Your task to perform on an android device: toggle sleep mode Image 0: 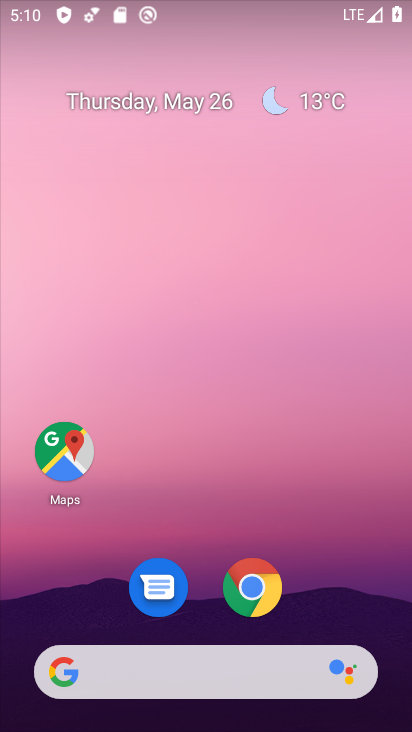
Step 0: drag from (208, 729) to (210, 140)
Your task to perform on an android device: toggle sleep mode Image 1: 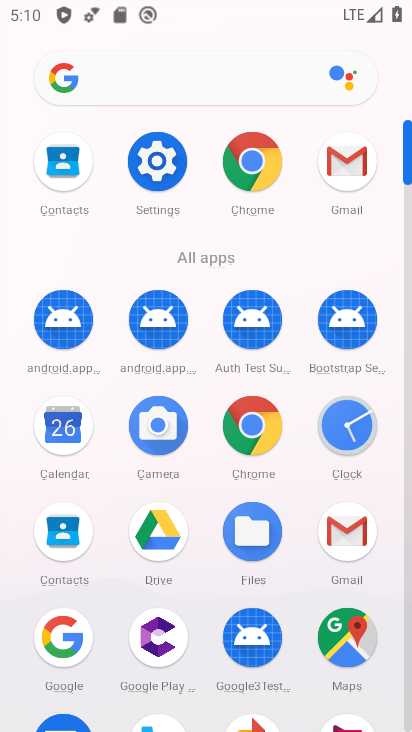
Step 1: click (158, 159)
Your task to perform on an android device: toggle sleep mode Image 2: 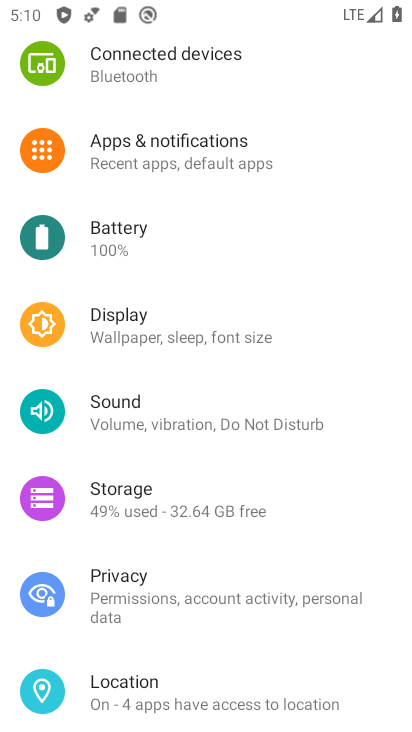
Step 2: drag from (235, 651) to (240, 252)
Your task to perform on an android device: toggle sleep mode Image 3: 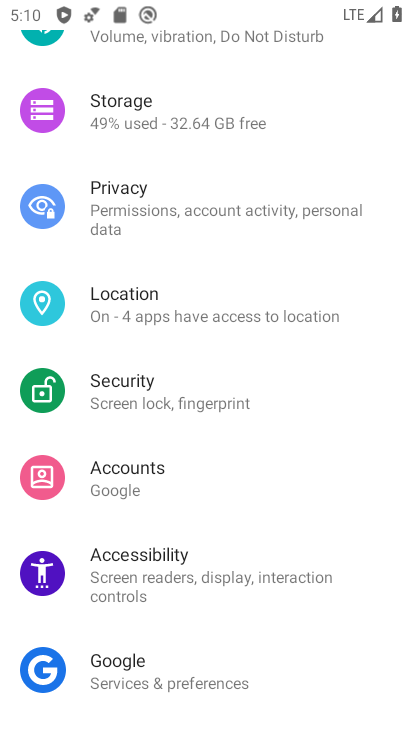
Step 3: drag from (209, 698) to (209, 312)
Your task to perform on an android device: toggle sleep mode Image 4: 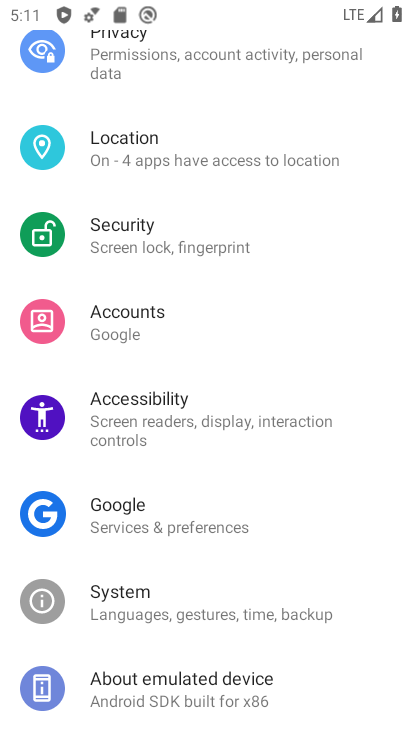
Step 4: drag from (261, 124) to (278, 442)
Your task to perform on an android device: toggle sleep mode Image 5: 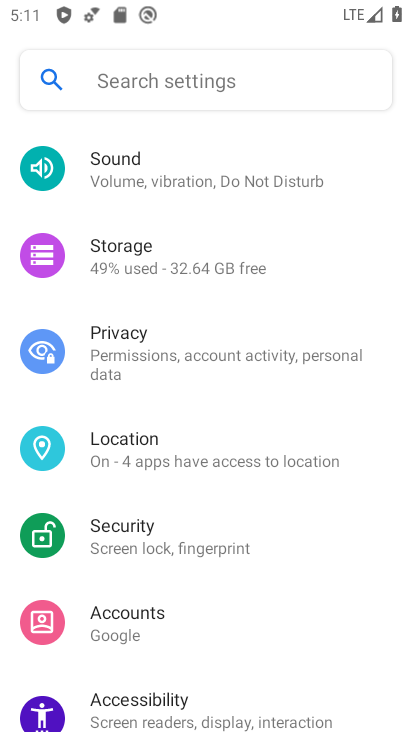
Step 5: drag from (265, 128) to (290, 507)
Your task to perform on an android device: toggle sleep mode Image 6: 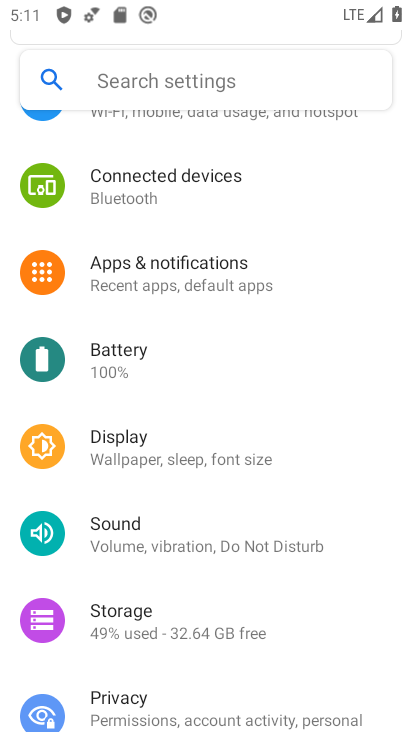
Step 6: drag from (274, 191) to (282, 546)
Your task to perform on an android device: toggle sleep mode Image 7: 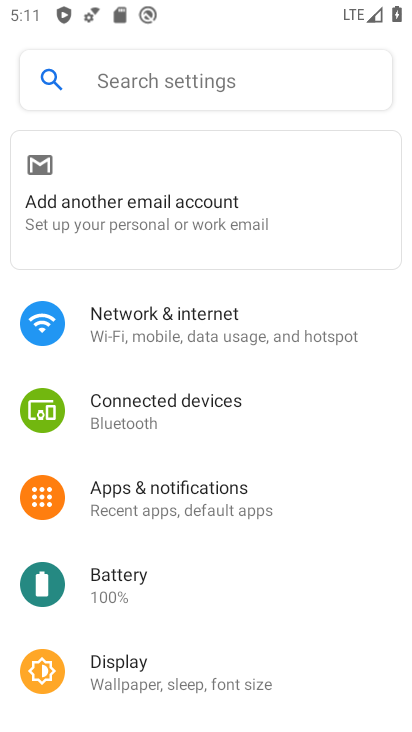
Step 7: click (180, 680)
Your task to perform on an android device: toggle sleep mode Image 8: 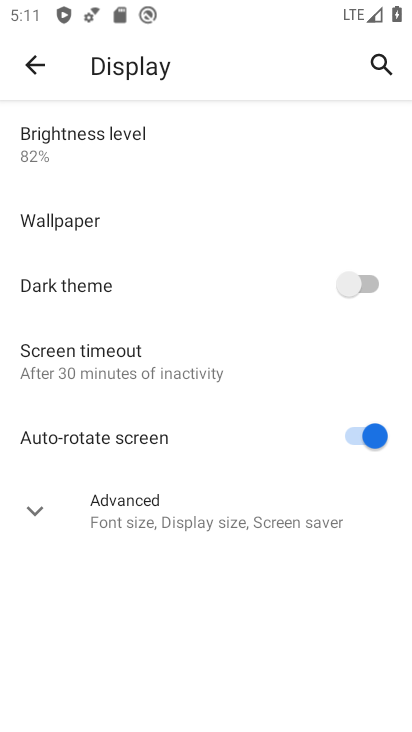
Step 8: task complete